Your task to perform on an android device: change notification settings in the gmail app Image 0: 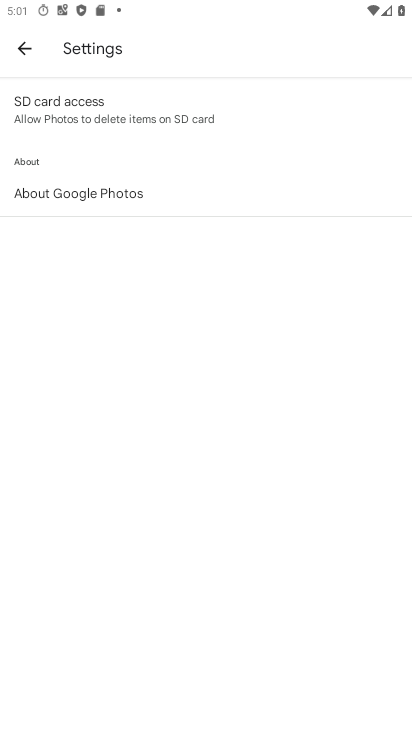
Step 0: press home button
Your task to perform on an android device: change notification settings in the gmail app Image 1: 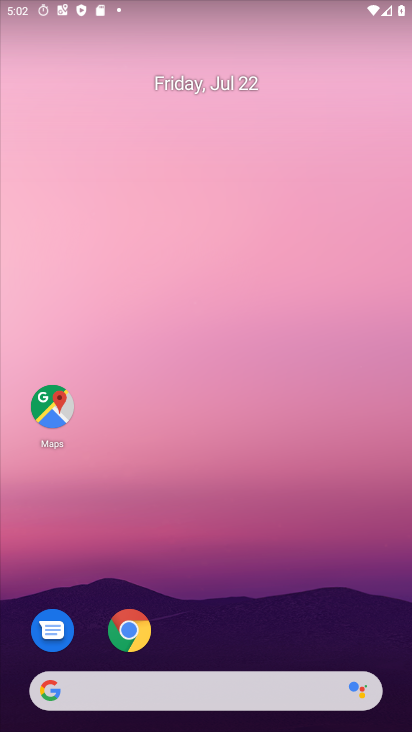
Step 1: drag from (272, 656) to (221, 11)
Your task to perform on an android device: change notification settings in the gmail app Image 2: 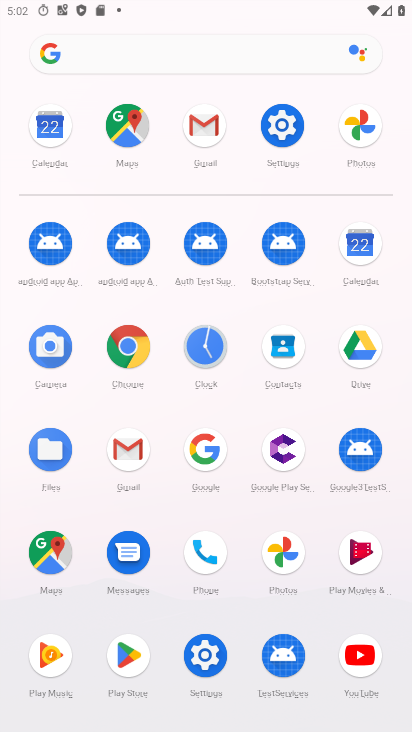
Step 2: click (122, 450)
Your task to perform on an android device: change notification settings in the gmail app Image 3: 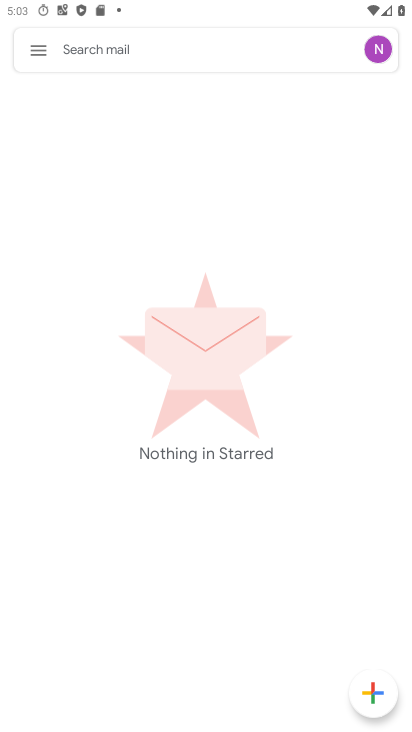
Step 3: click (40, 48)
Your task to perform on an android device: change notification settings in the gmail app Image 4: 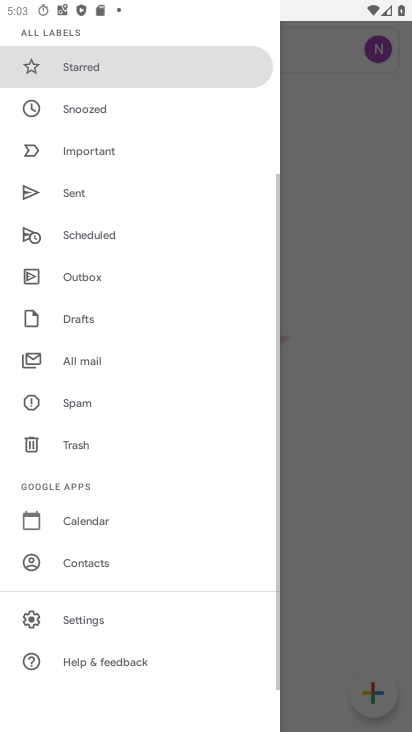
Step 4: click (85, 623)
Your task to perform on an android device: change notification settings in the gmail app Image 5: 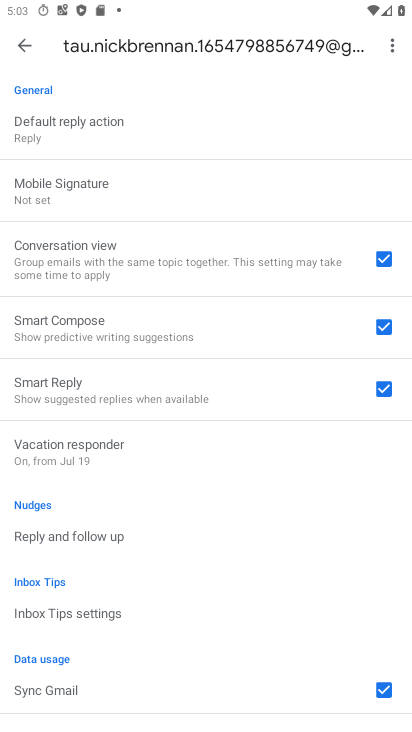
Step 5: drag from (159, 688) to (165, 12)
Your task to perform on an android device: change notification settings in the gmail app Image 6: 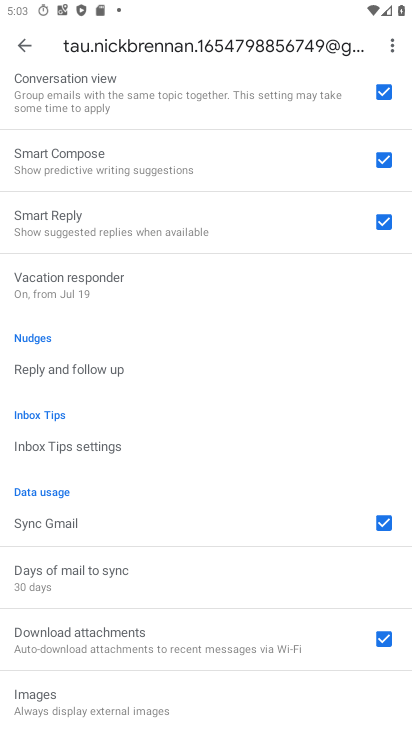
Step 6: drag from (112, 271) to (81, 702)
Your task to perform on an android device: change notification settings in the gmail app Image 7: 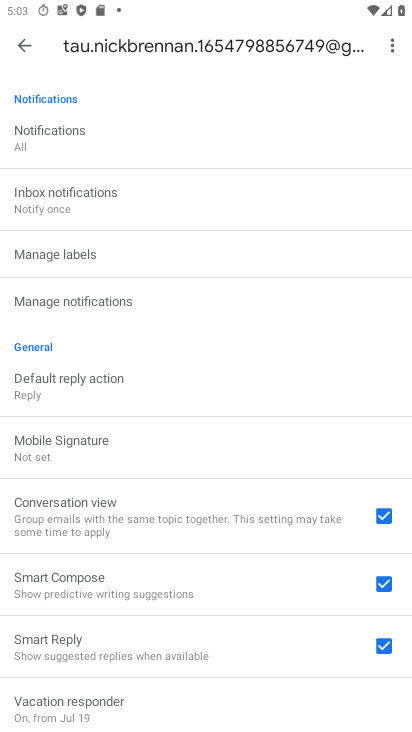
Step 7: click (81, 288)
Your task to perform on an android device: change notification settings in the gmail app Image 8: 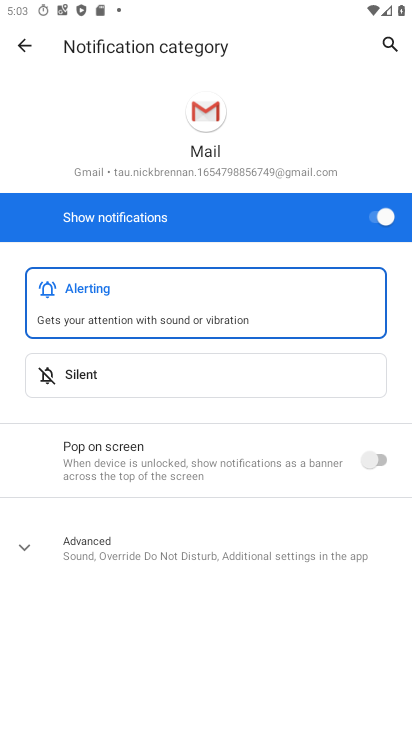
Step 8: click (373, 220)
Your task to perform on an android device: change notification settings in the gmail app Image 9: 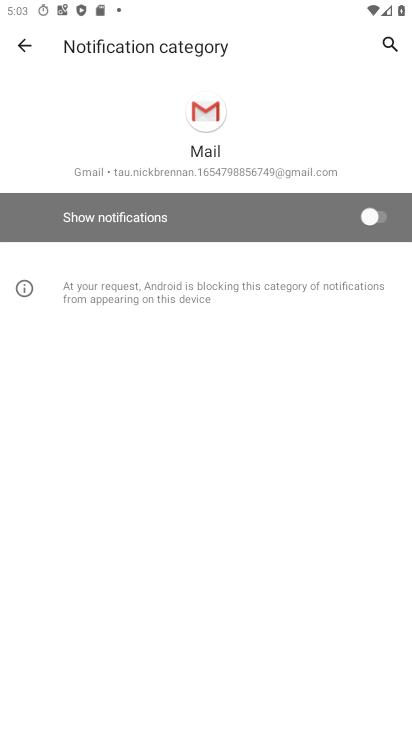
Step 9: task complete